Your task to perform on an android device: Go to Reddit.com Image 0: 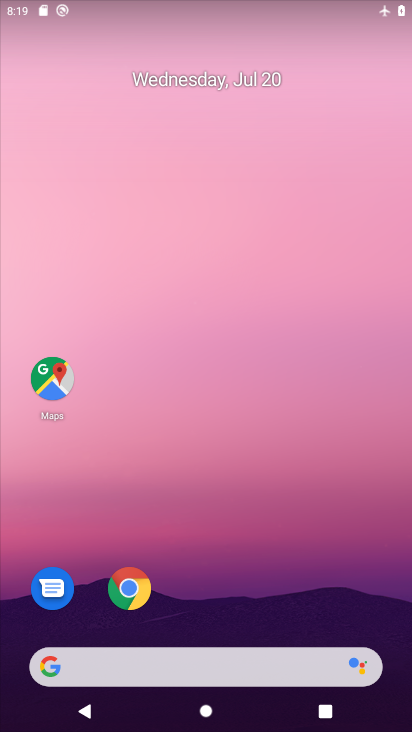
Step 0: press home button
Your task to perform on an android device: Go to Reddit.com Image 1: 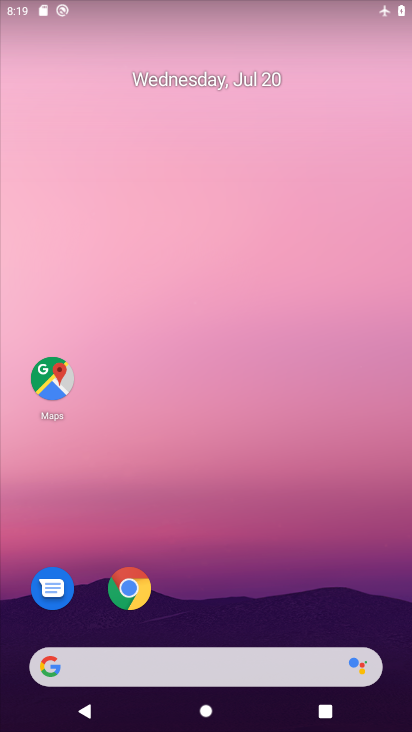
Step 1: click (129, 582)
Your task to perform on an android device: Go to Reddit.com Image 2: 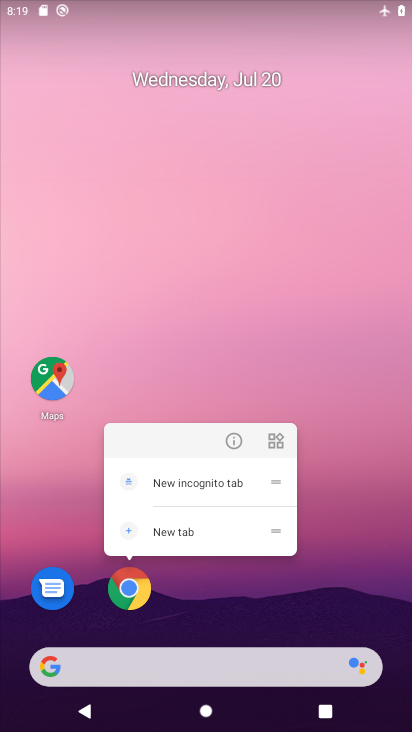
Step 2: click (121, 587)
Your task to perform on an android device: Go to Reddit.com Image 3: 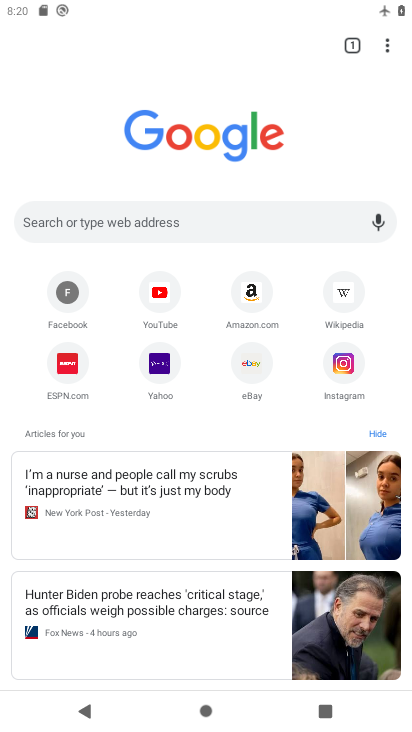
Step 3: click (133, 220)
Your task to perform on an android device: Go to Reddit.com Image 4: 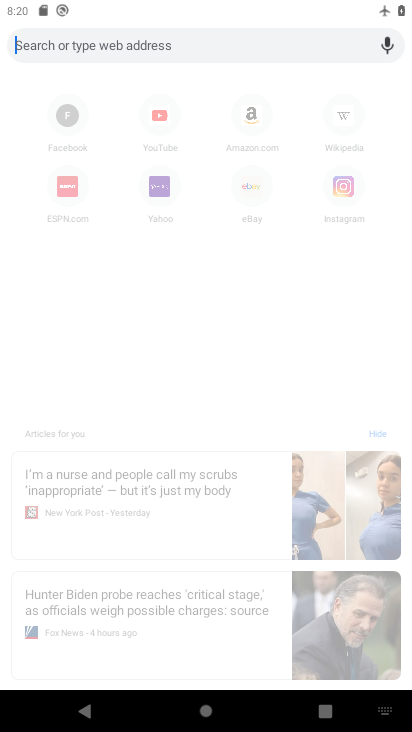
Step 4: type "reddit.com"
Your task to perform on an android device: Go to Reddit.com Image 5: 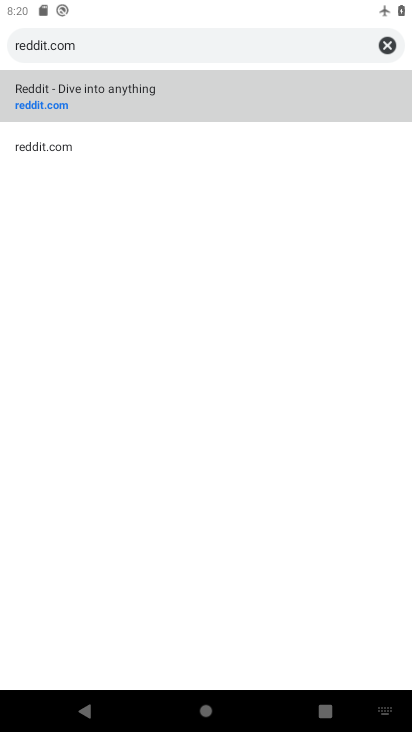
Step 5: click (114, 81)
Your task to perform on an android device: Go to Reddit.com Image 6: 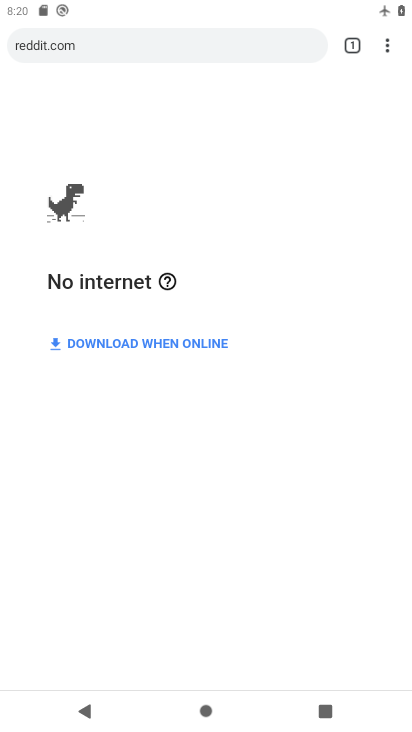
Step 6: task complete